Your task to perform on an android device: Open Google Maps and go to "Timeline" Image 0: 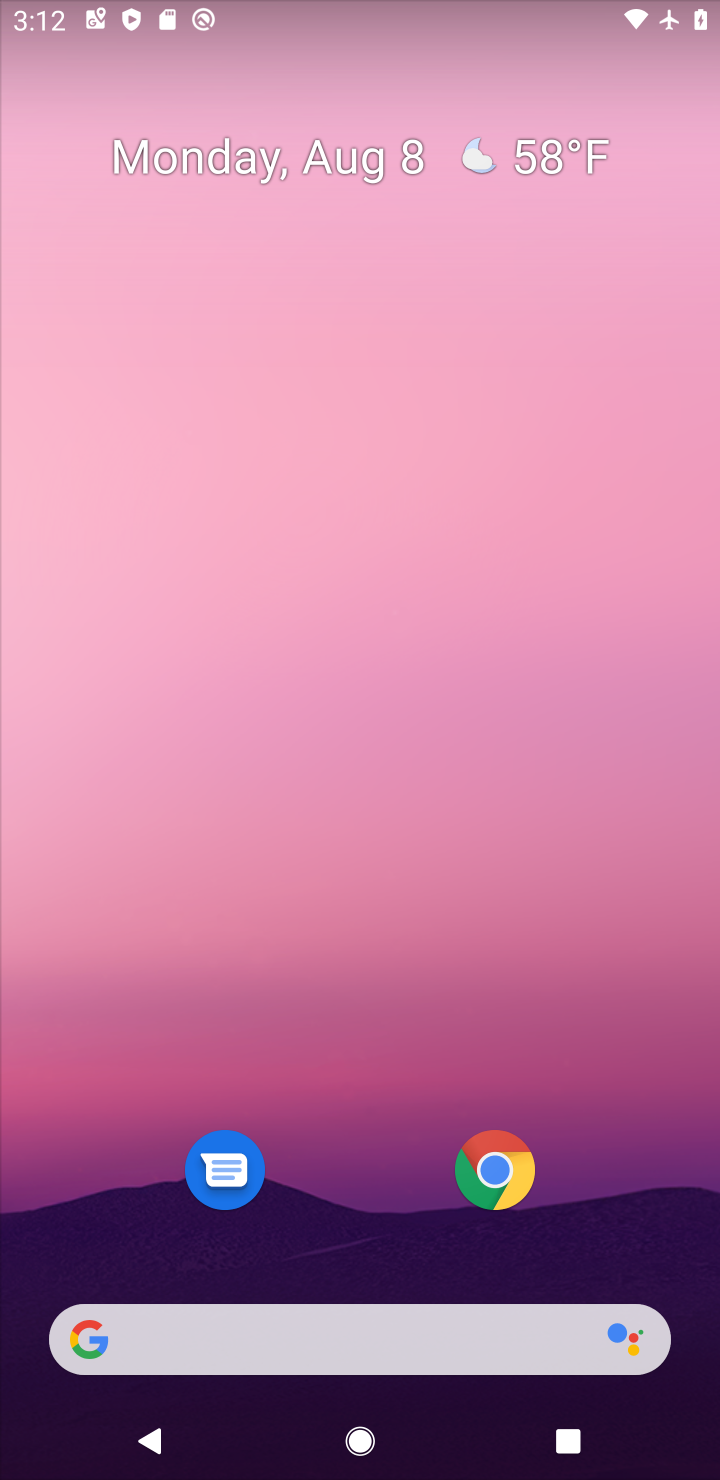
Step 0: drag from (343, 1099) to (343, 384)
Your task to perform on an android device: Open Google Maps and go to "Timeline" Image 1: 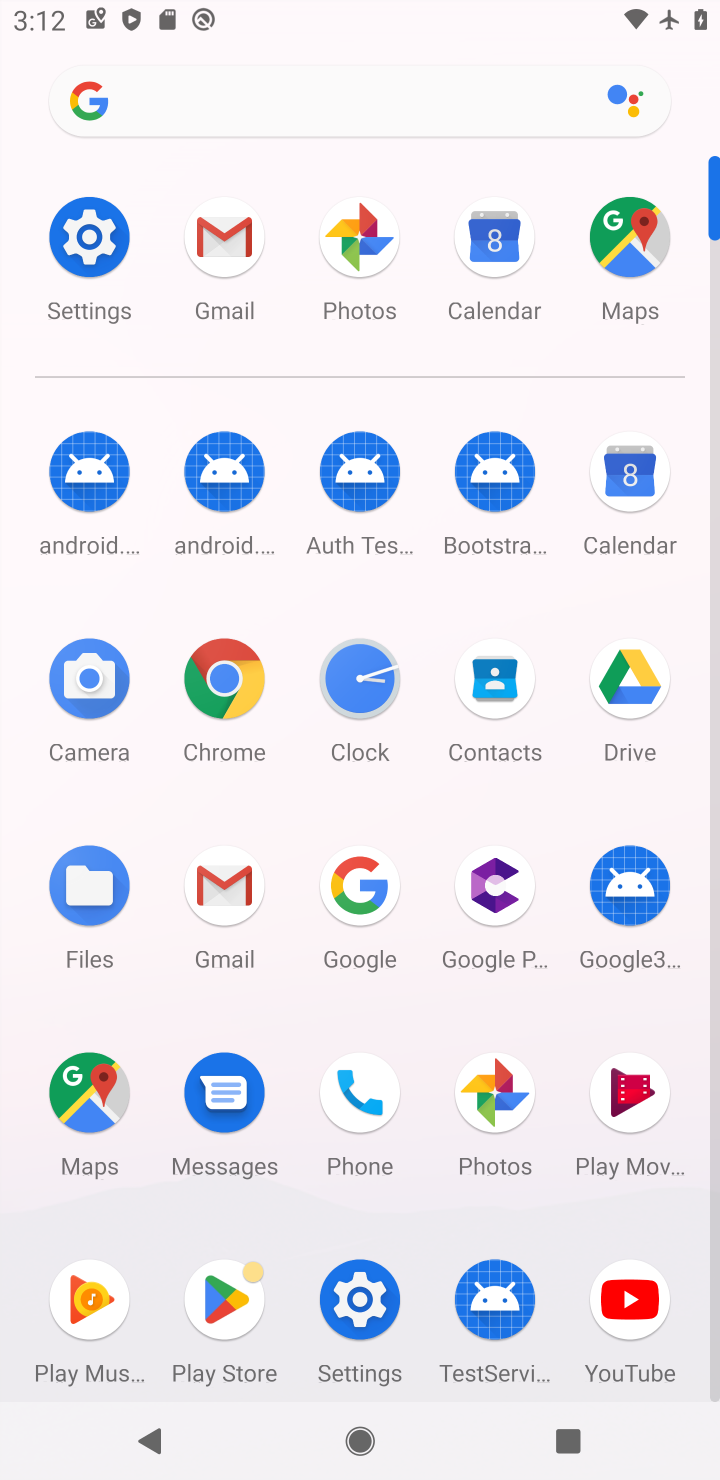
Step 1: click (615, 269)
Your task to perform on an android device: Open Google Maps and go to "Timeline" Image 2: 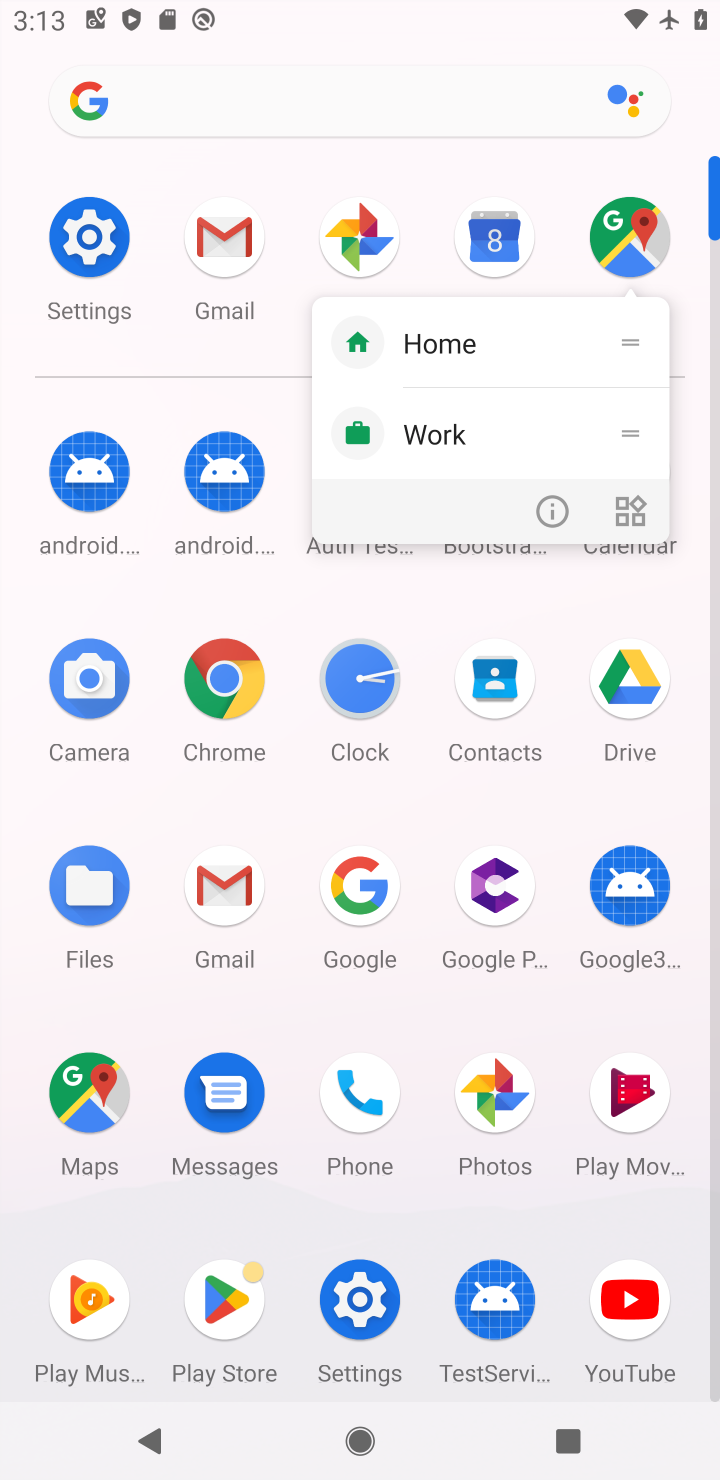
Step 2: click (615, 269)
Your task to perform on an android device: Open Google Maps and go to "Timeline" Image 3: 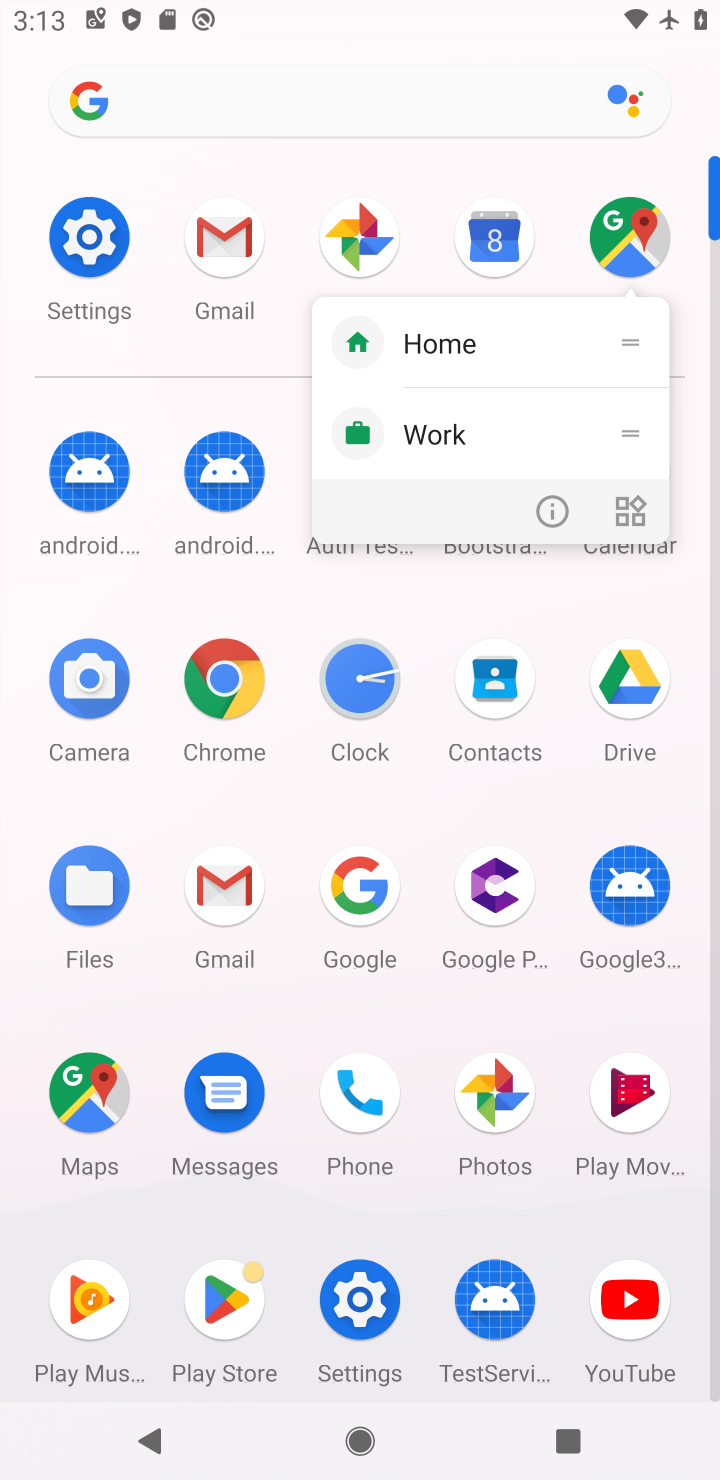
Step 3: click (625, 228)
Your task to perform on an android device: Open Google Maps and go to "Timeline" Image 4: 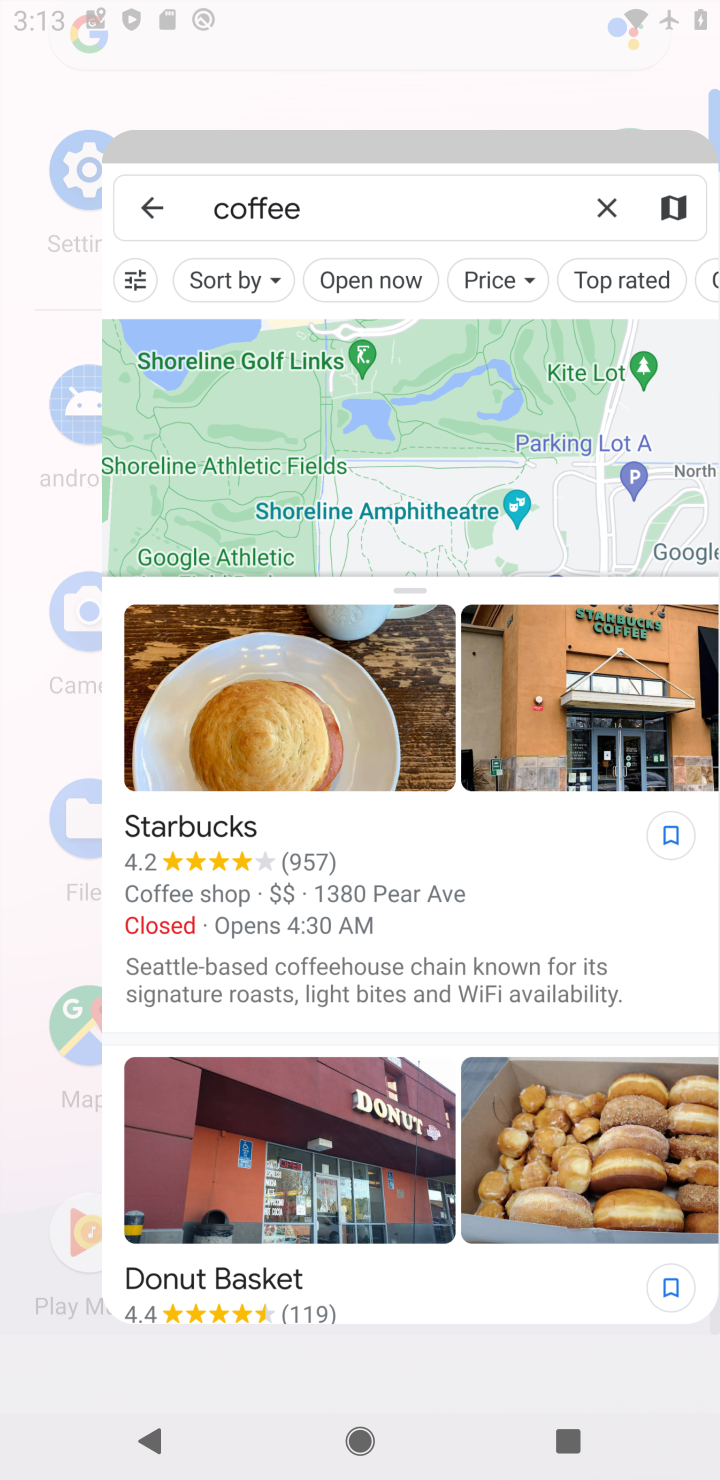
Step 4: click (625, 228)
Your task to perform on an android device: Open Google Maps and go to "Timeline" Image 5: 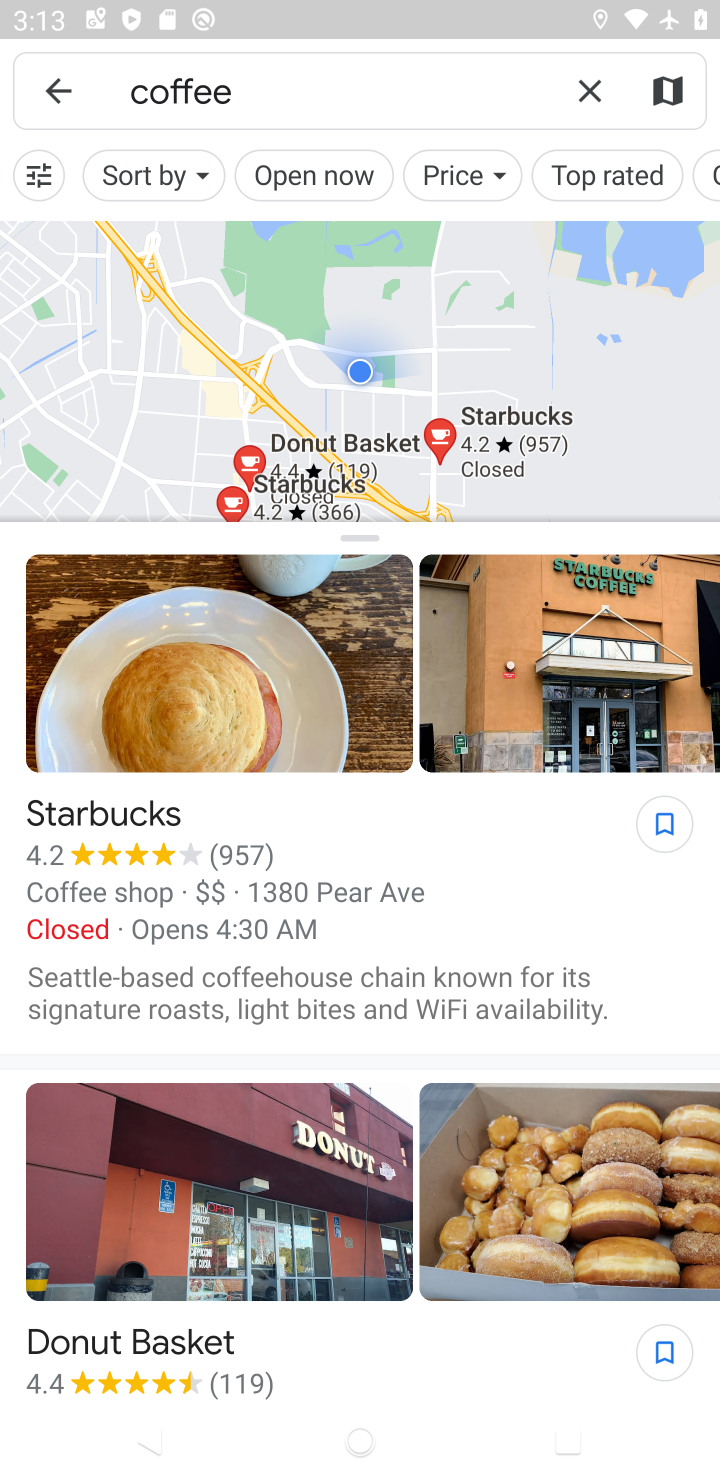
Step 5: click (53, 88)
Your task to perform on an android device: Open Google Maps and go to "Timeline" Image 6: 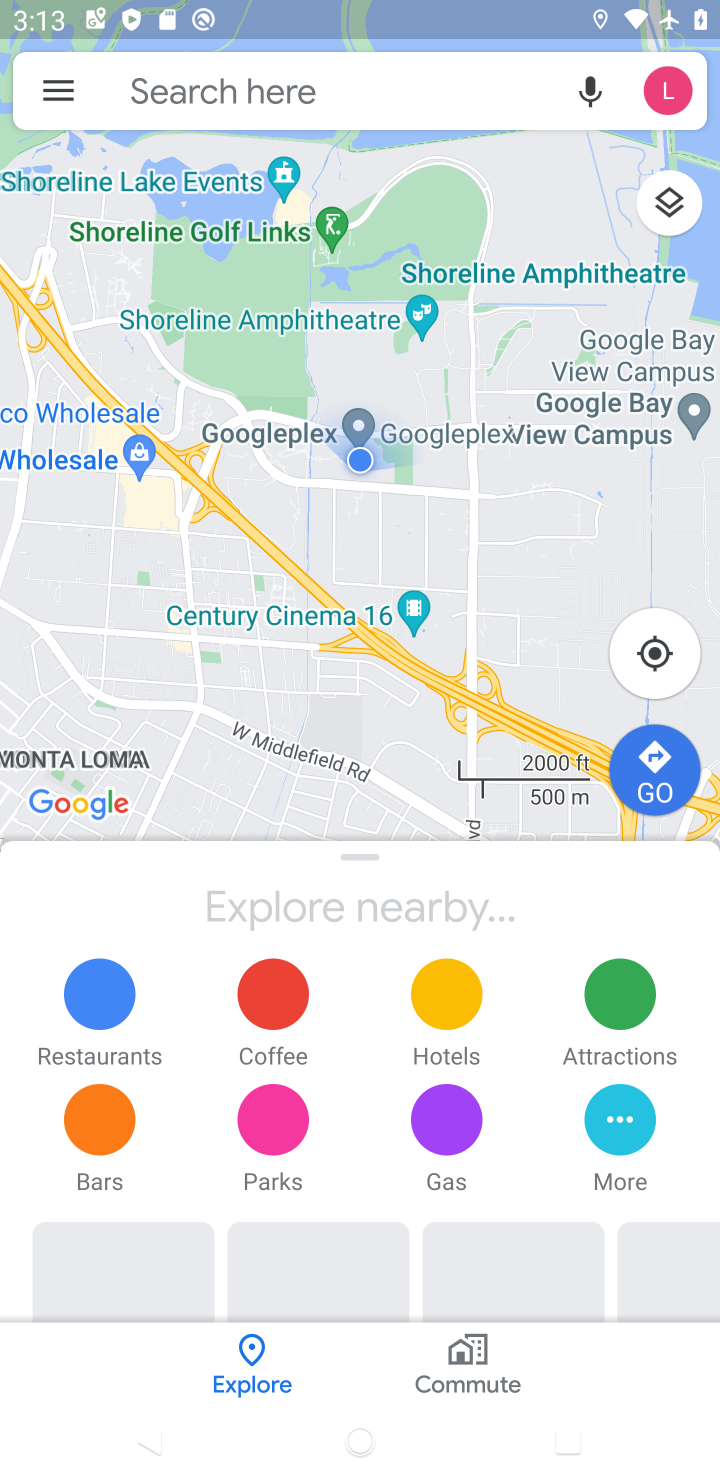
Step 6: click (53, 88)
Your task to perform on an android device: Open Google Maps and go to "Timeline" Image 7: 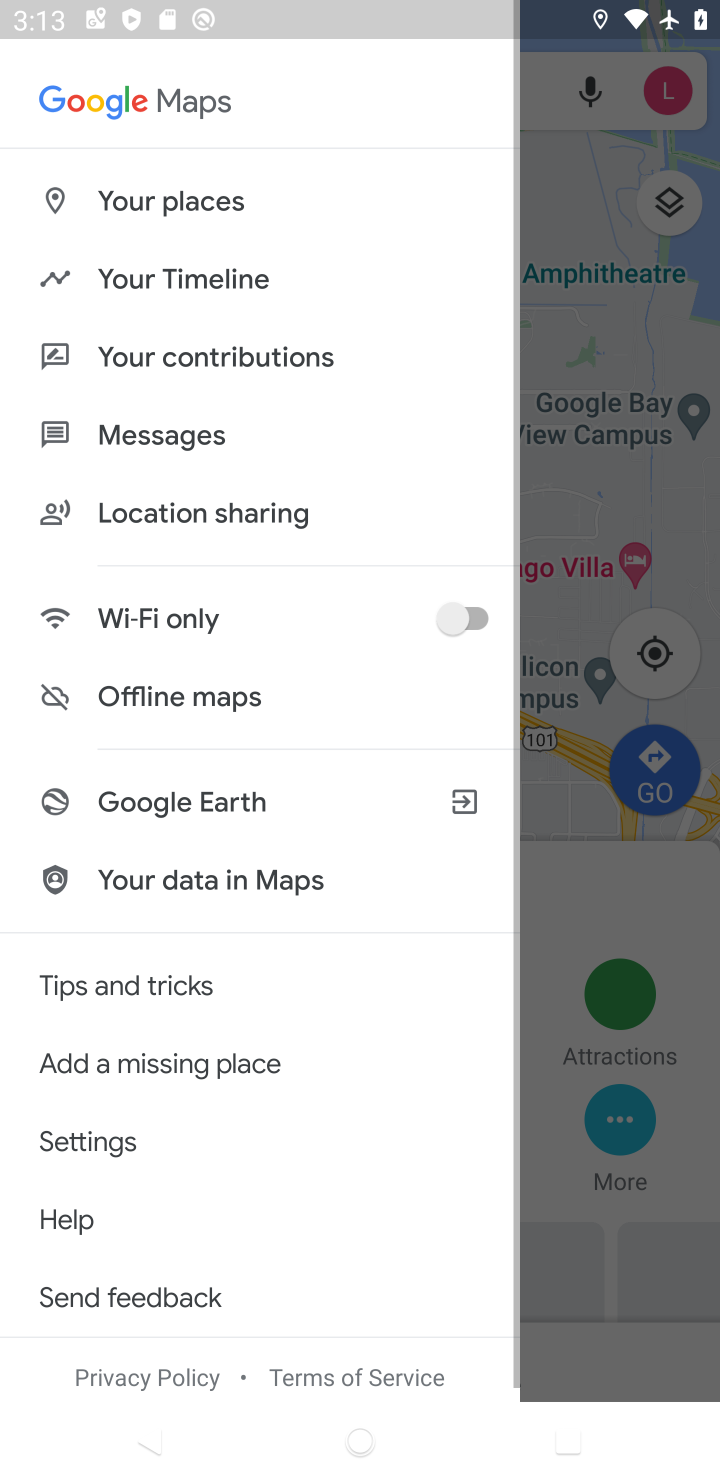
Step 7: click (221, 267)
Your task to perform on an android device: Open Google Maps and go to "Timeline" Image 8: 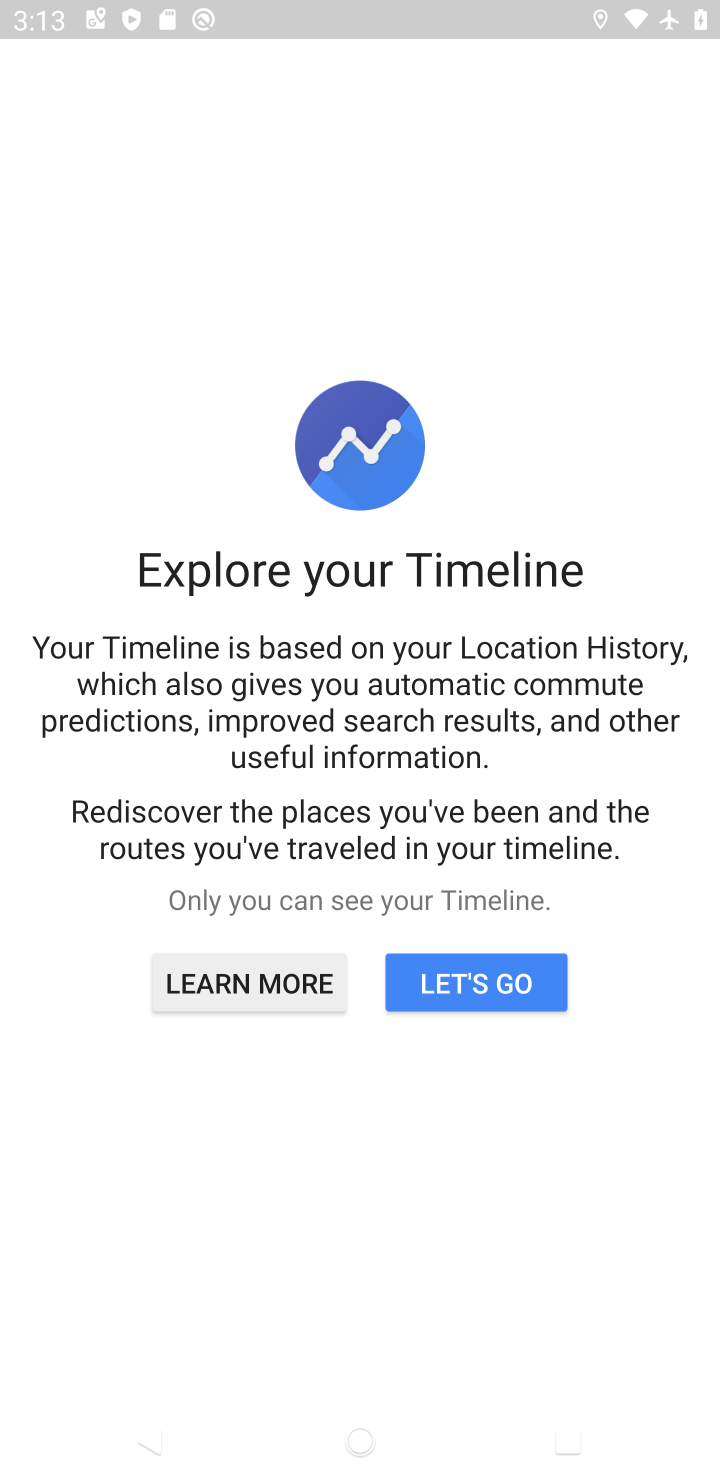
Step 8: click (446, 983)
Your task to perform on an android device: Open Google Maps and go to "Timeline" Image 9: 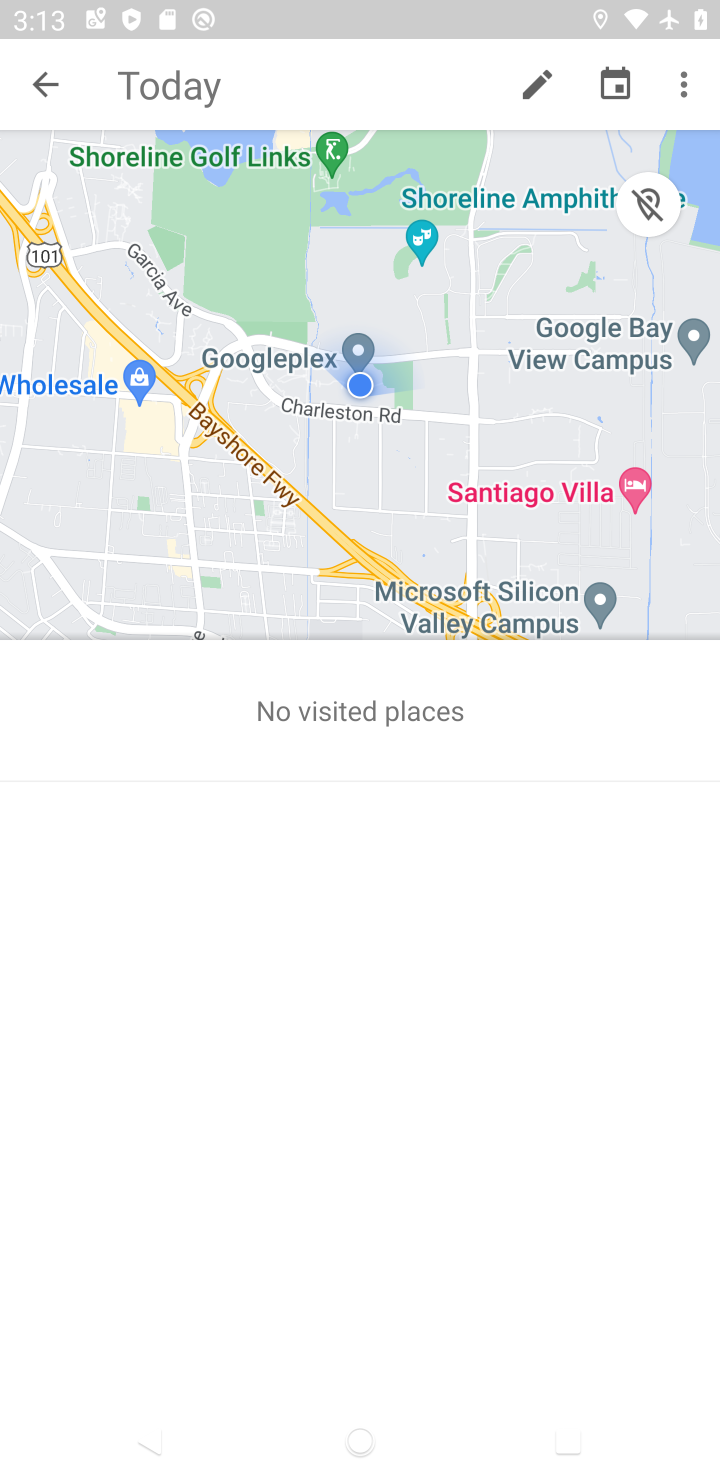
Step 9: task complete